Your task to perform on an android device: Search for energizer triple a on amazon, select the first entry, add it to the cart, then select checkout. Image 0: 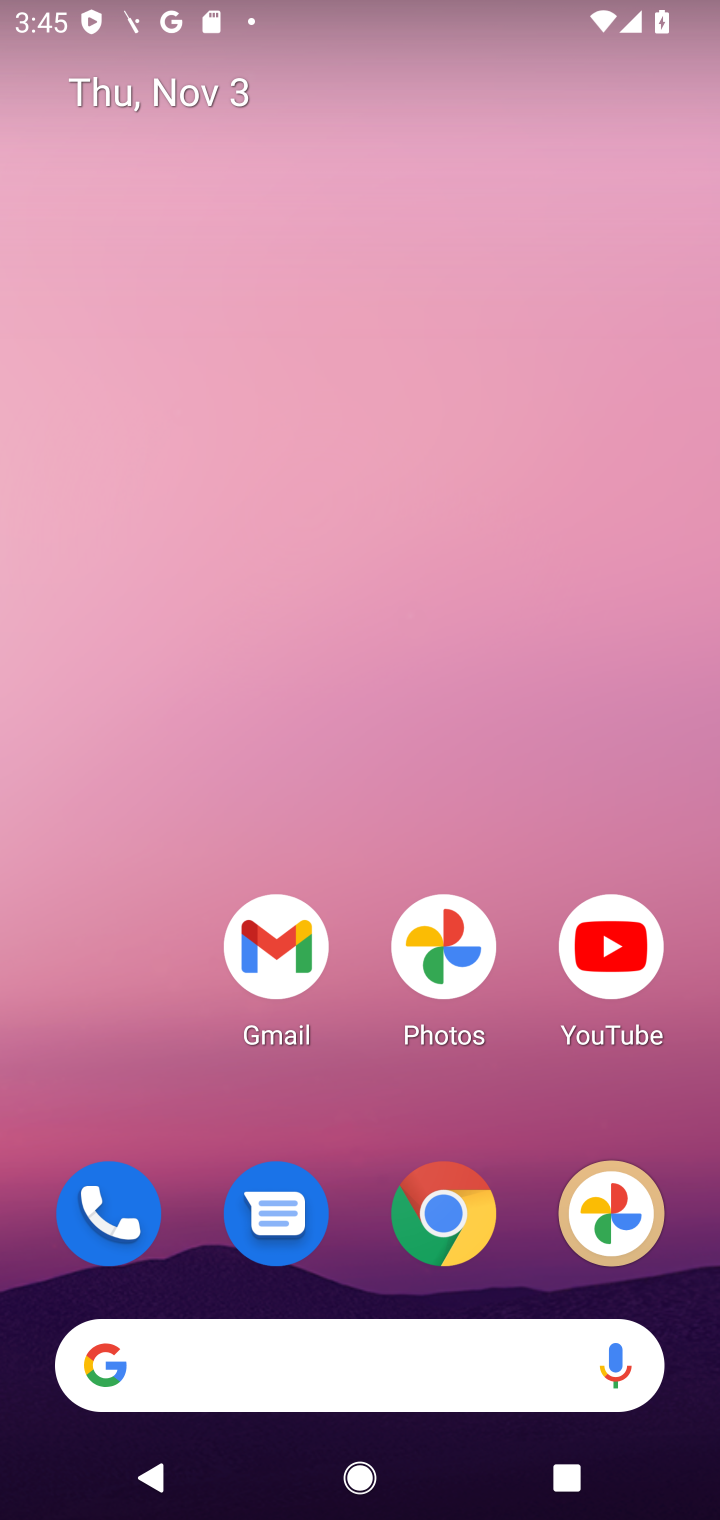
Step 0: click (437, 1220)
Your task to perform on an android device: Search for energizer triple a on amazon, select the first entry, add it to the cart, then select checkout. Image 1: 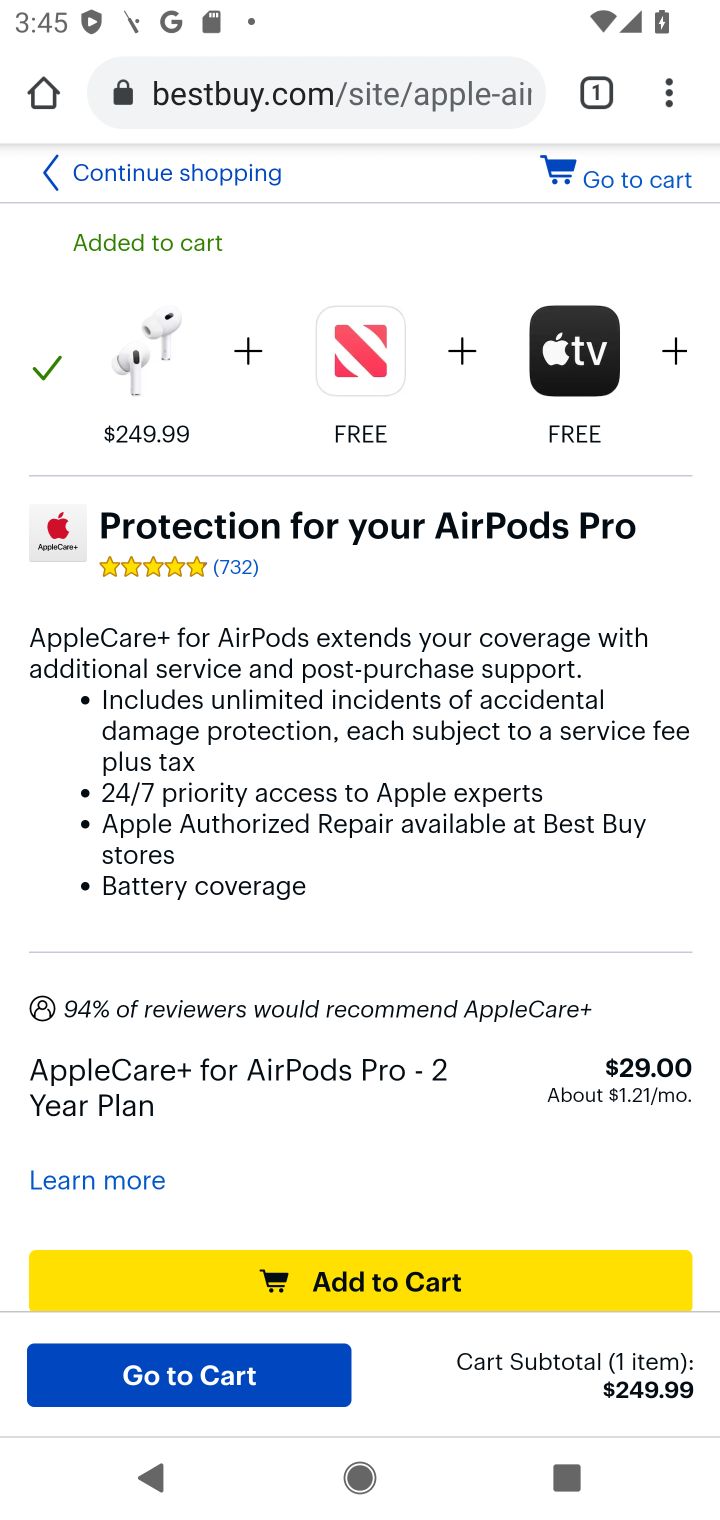
Step 1: click (289, 105)
Your task to perform on an android device: Search for energizer triple a on amazon, select the first entry, add it to the cart, then select checkout. Image 2: 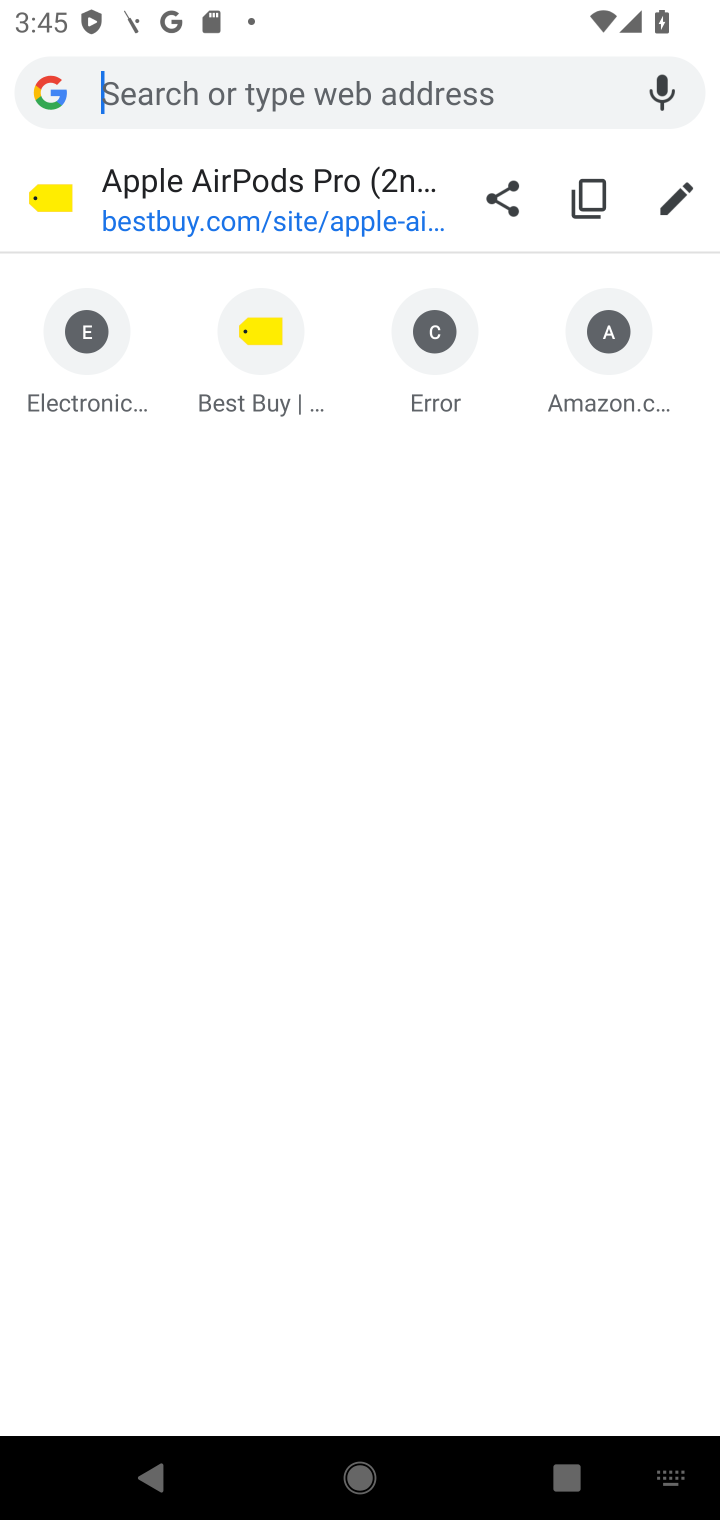
Step 2: click (589, 360)
Your task to perform on an android device: Search for energizer triple a on amazon, select the first entry, add it to the cart, then select checkout. Image 3: 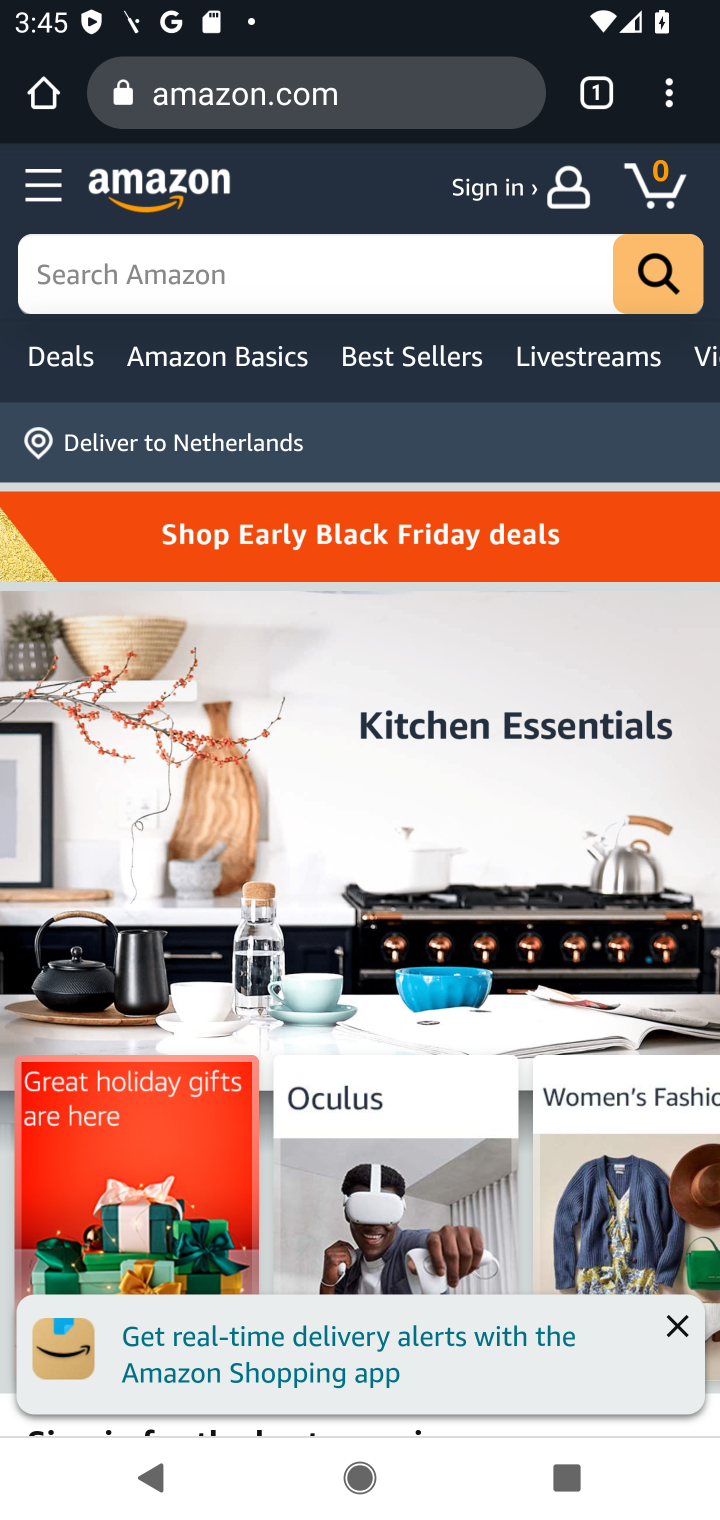
Step 3: click (246, 293)
Your task to perform on an android device: Search for energizer triple a on amazon, select the first entry, add it to the cart, then select checkout. Image 4: 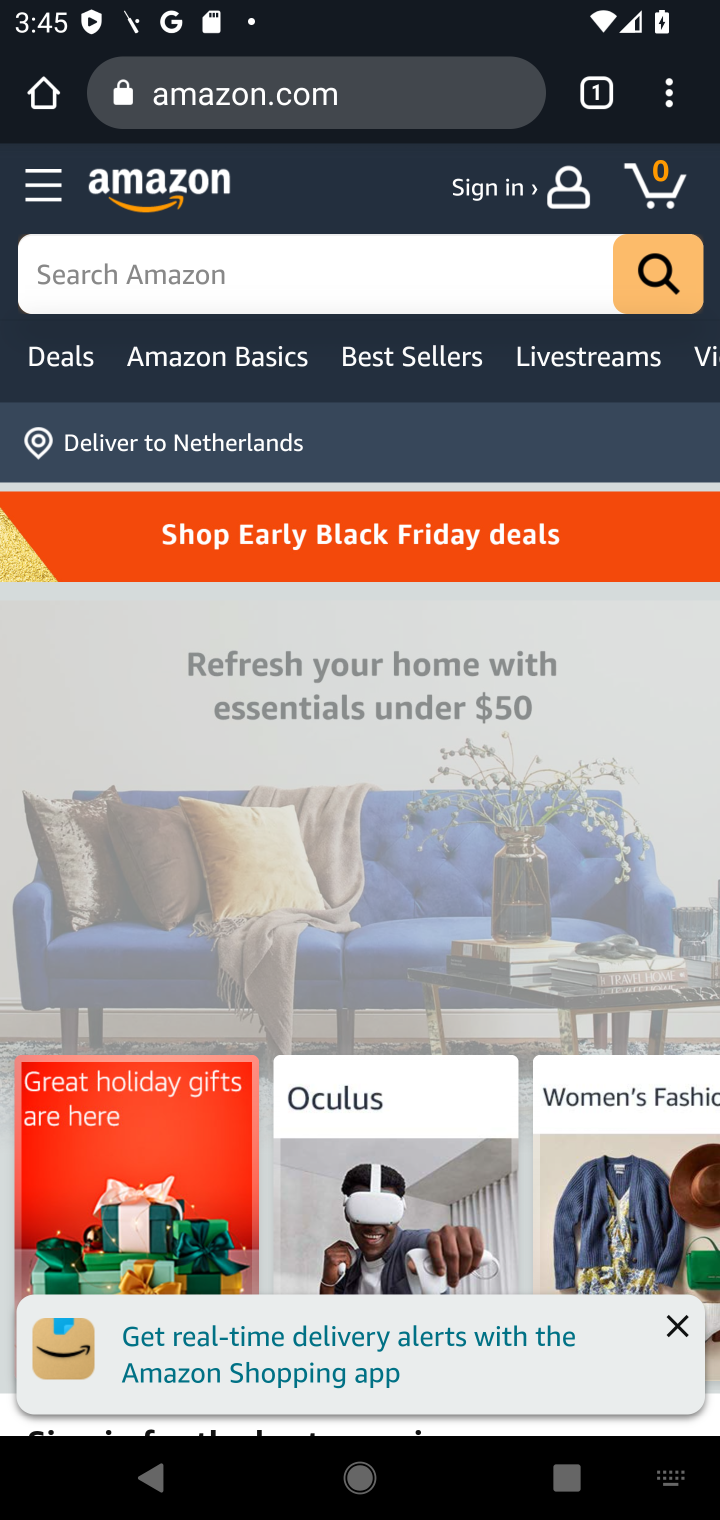
Step 4: type "energizer triple a"
Your task to perform on an android device: Search for energizer triple a on amazon, select the first entry, add it to the cart, then select checkout. Image 5: 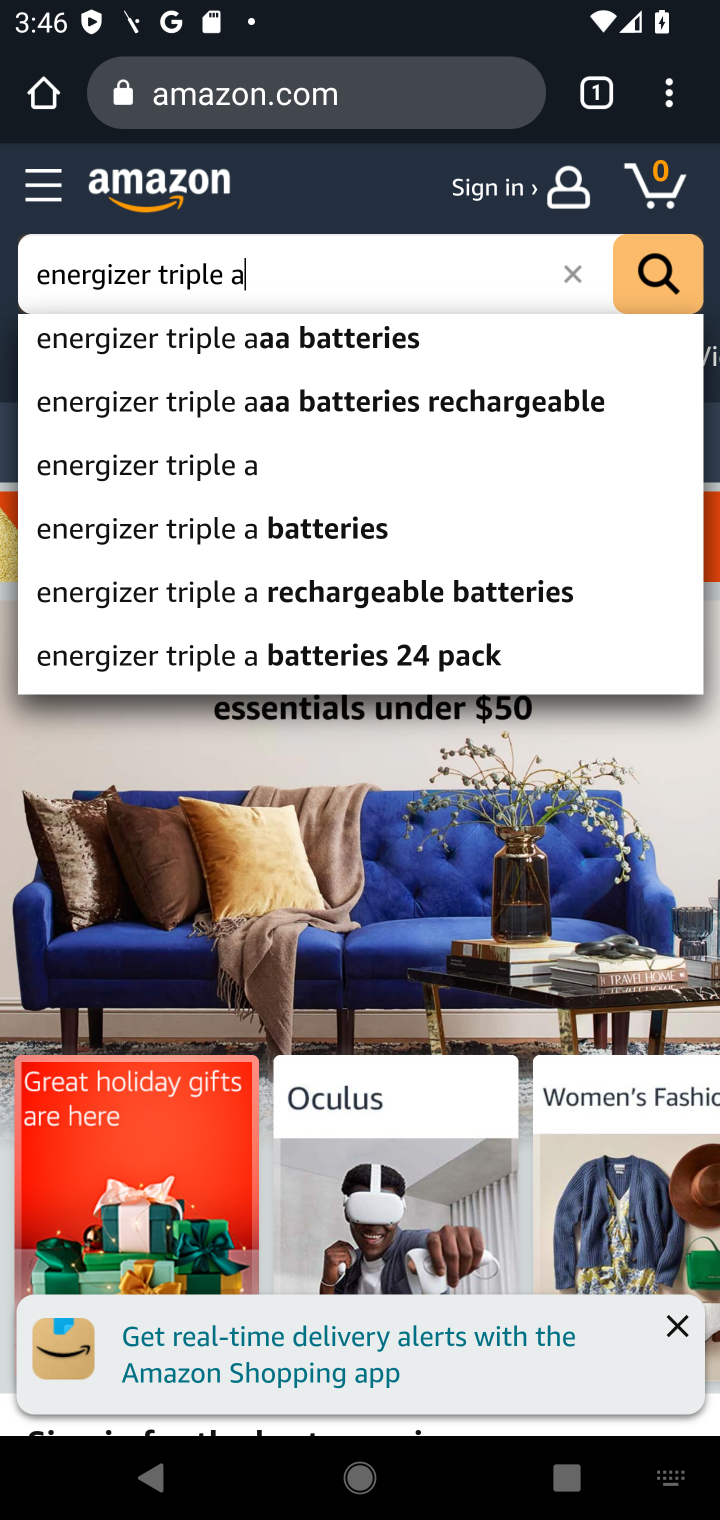
Step 5: click (236, 356)
Your task to perform on an android device: Search for energizer triple a on amazon, select the first entry, add it to the cart, then select checkout. Image 6: 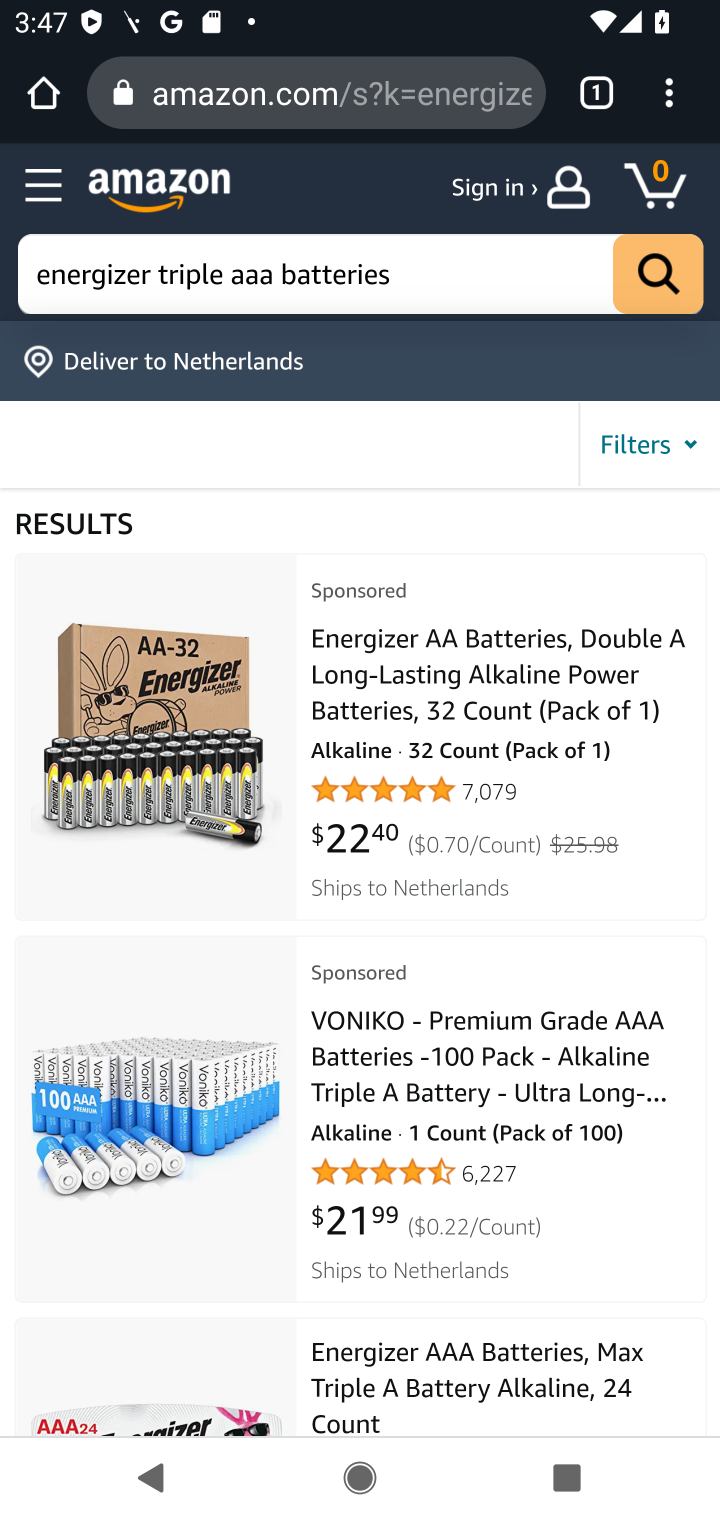
Step 6: task complete